Your task to perform on an android device: toggle javascript in the chrome app Image 0: 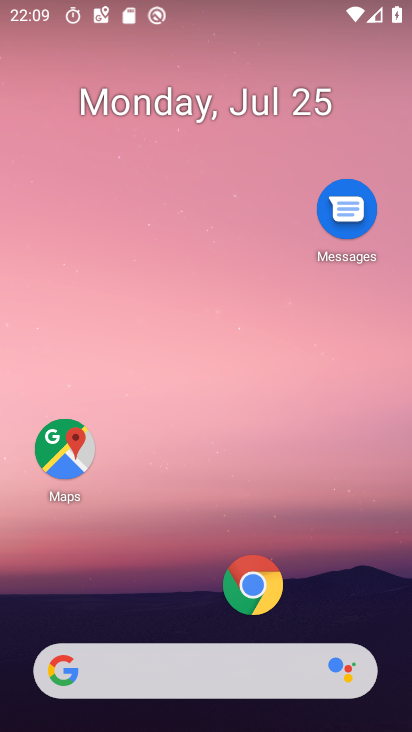
Step 0: press home button
Your task to perform on an android device: toggle javascript in the chrome app Image 1: 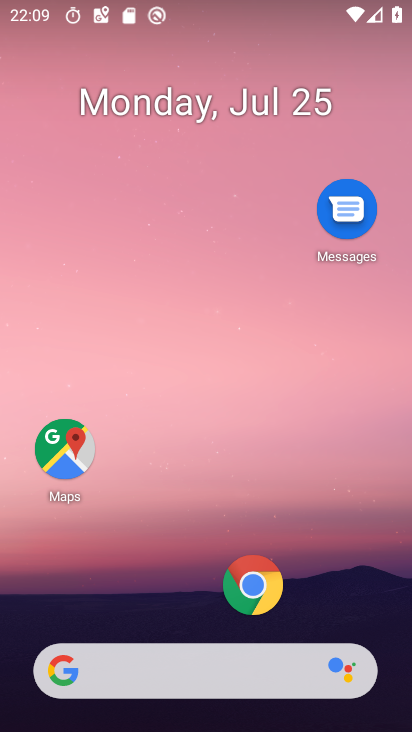
Step 1: click (234, 589)
Your task to perform on an android device: toggle javascript in the chrome app Image 2: 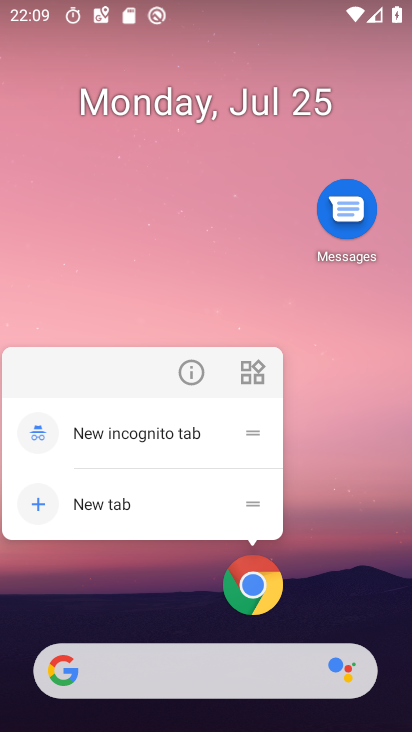
Step 2: click (248, 583)
Your task to perform on an android device: toggle javascript in the chrome app Image 3: 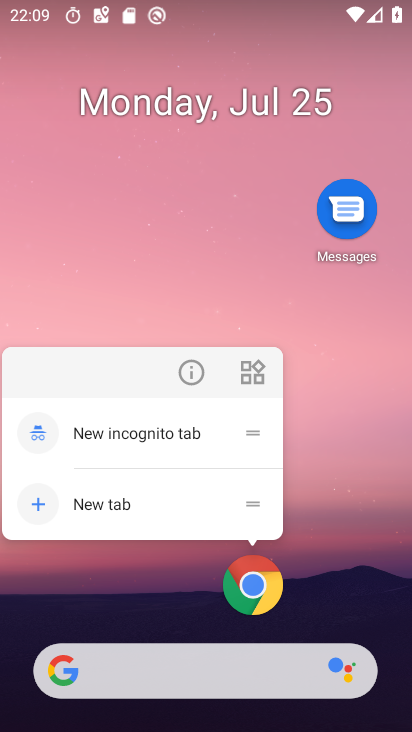
Step 3: click (261, 587)
Your task to perform on an android device: toggle javascript in the chrome app Image 4: 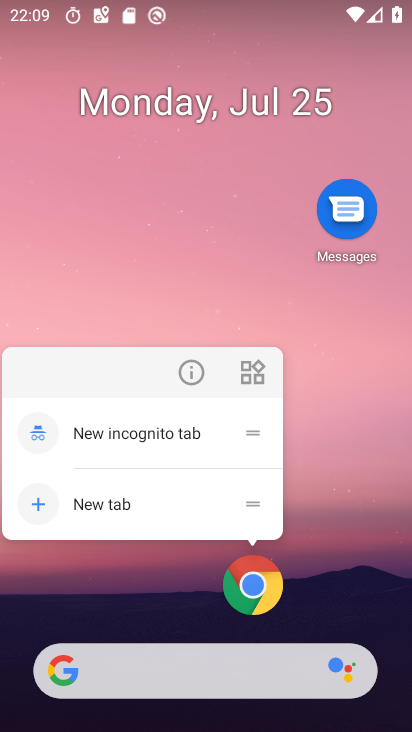
Step 4: click (261, 587)
Your task to perform on an android device: toggle javascript in the chrome app Image 5: 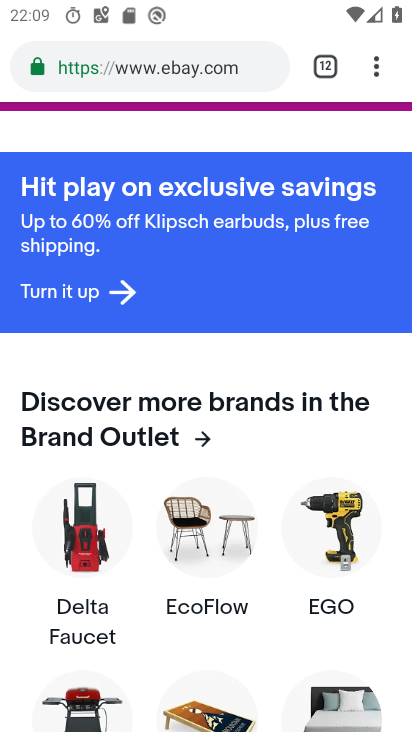
Step 5: drag from (374, 78) to (217, 582)
Your task to perform on an android device: toggle javascript in the chrome app Image 6: 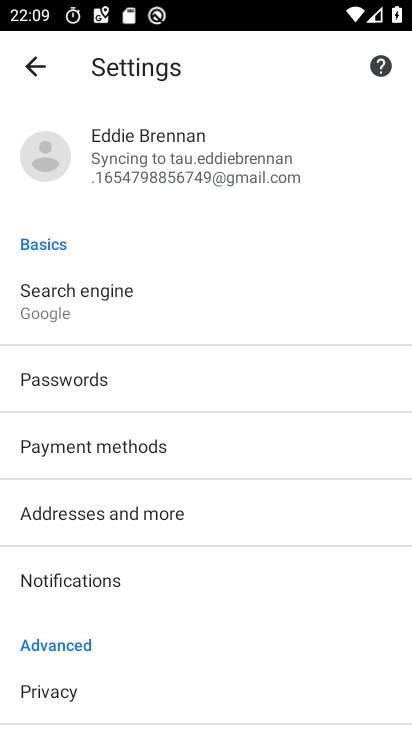
Step 6: drag from (163, 633) to (291, 282)
Your task to perform on an android device: toggle javascript in the chrome app Image 7: 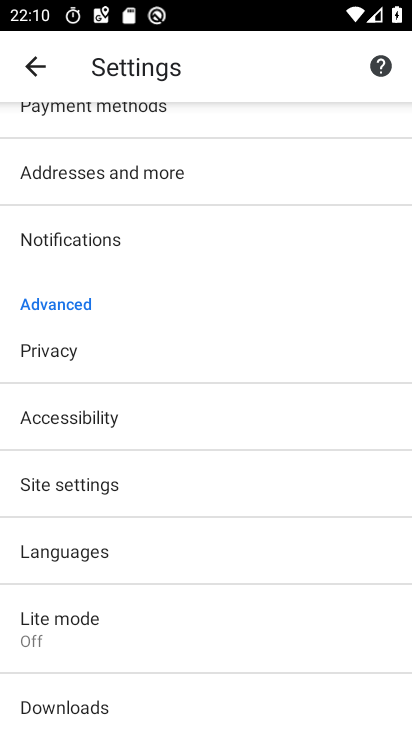
Step 7: click (108, 489)
Your task to perform on an android device: toggle javascript in the chrome app Image 8: 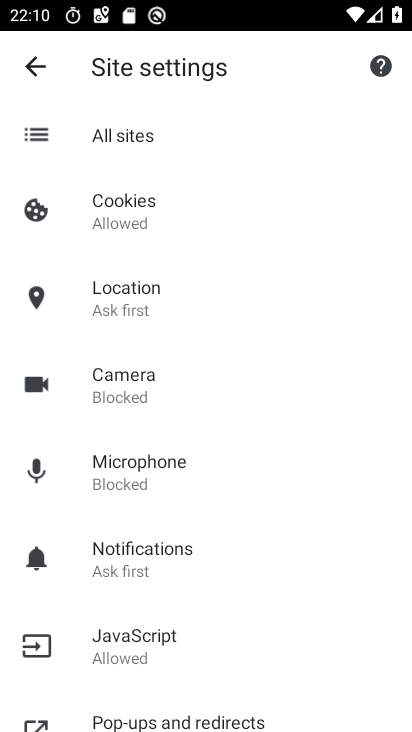
Step 8: click (149, 638)
Your task to perform on an android device: toggle javascript in the chrome app Image 9: 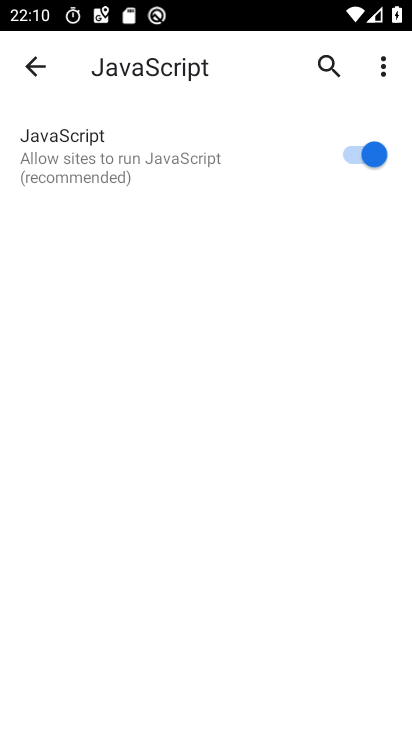
Step 9: click (354, 148)
Your task to perform on an android device: toggle javascript in the chrome app Image 10: 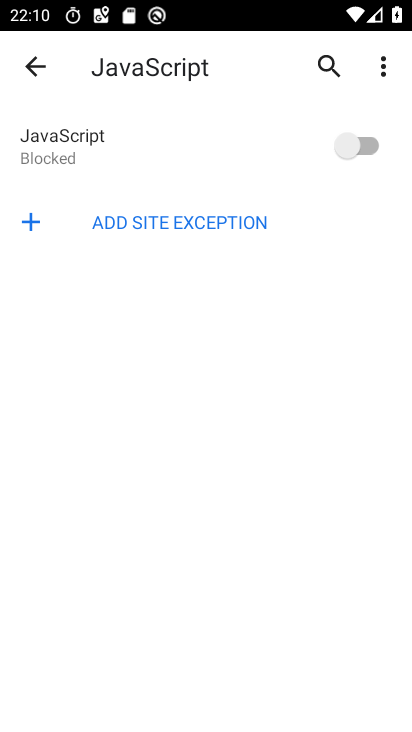
Step 10: task complete